Your task to perform on an android device: What is the recent news? Image 0: 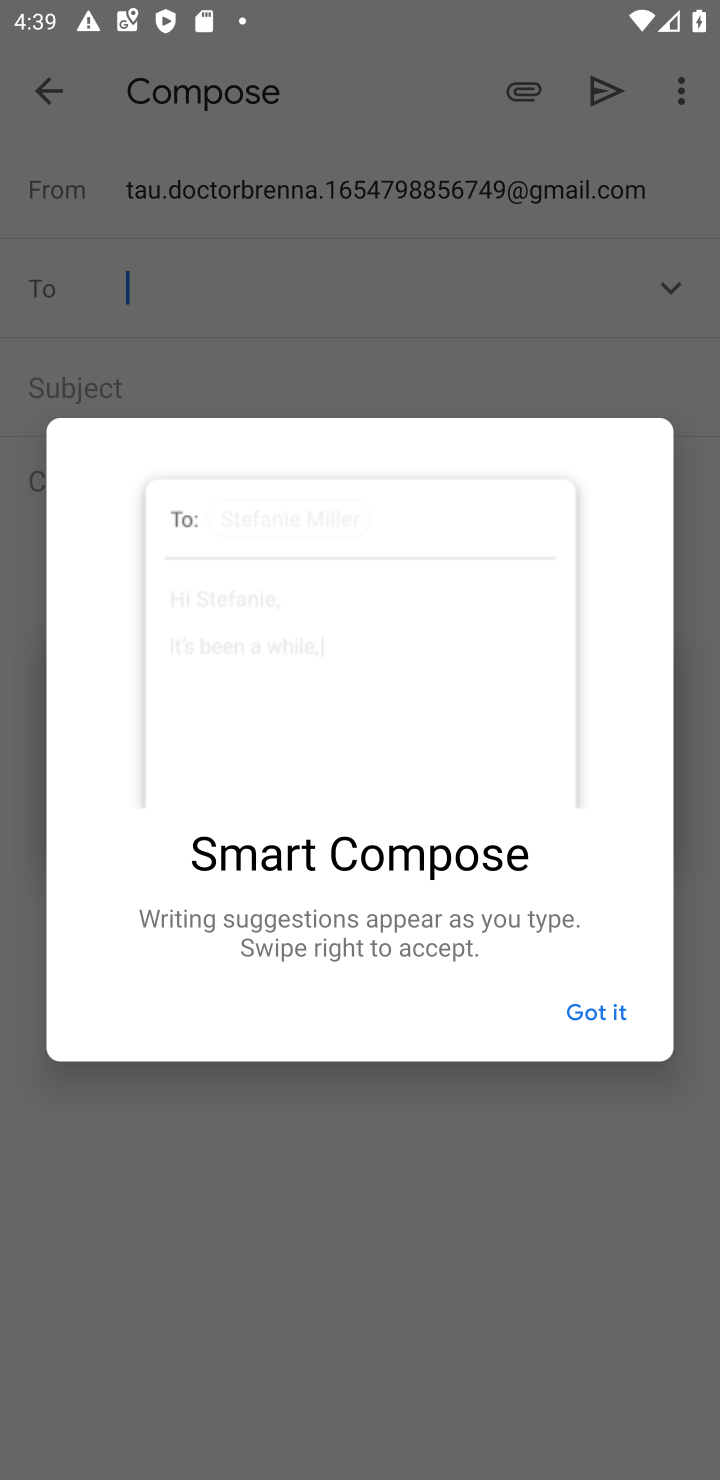
Step 0: click (576, 1019)
Your task to perform on an android device: What is the recent news? Image 1: 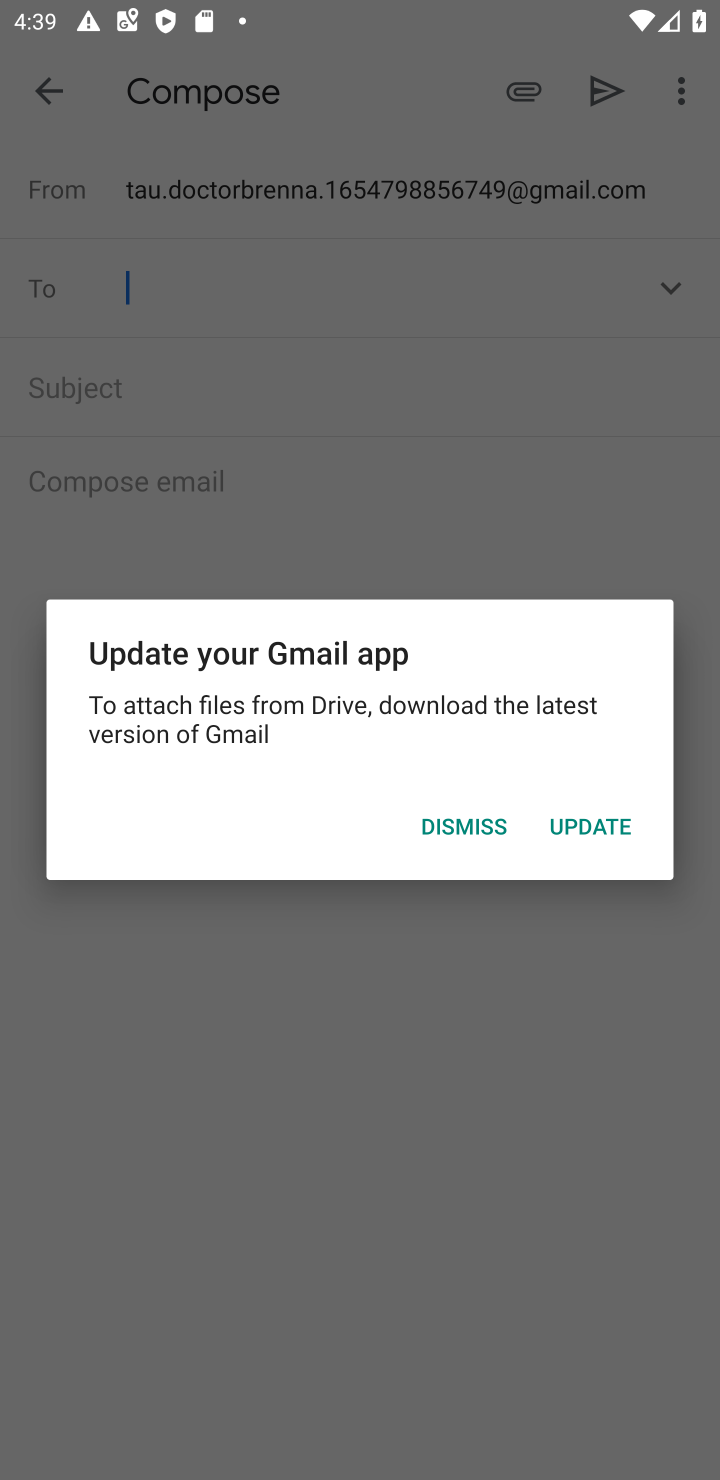
Step 1: press home button
Your task to perform on an android device: What is the recent news? Image 2: 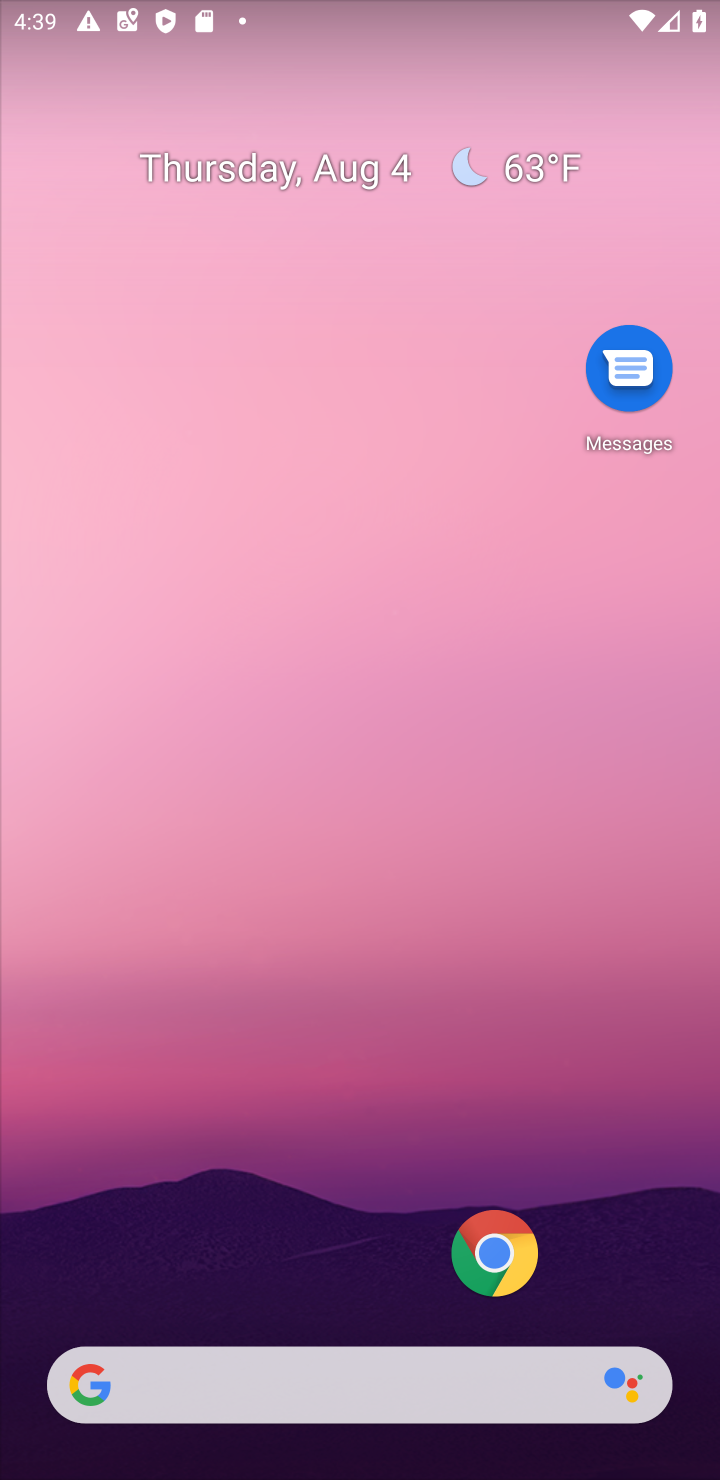
Step 2: drag from (318, 1333) to (290, 547)
Your task to perform on an android device: What is the recent news? Image 3: 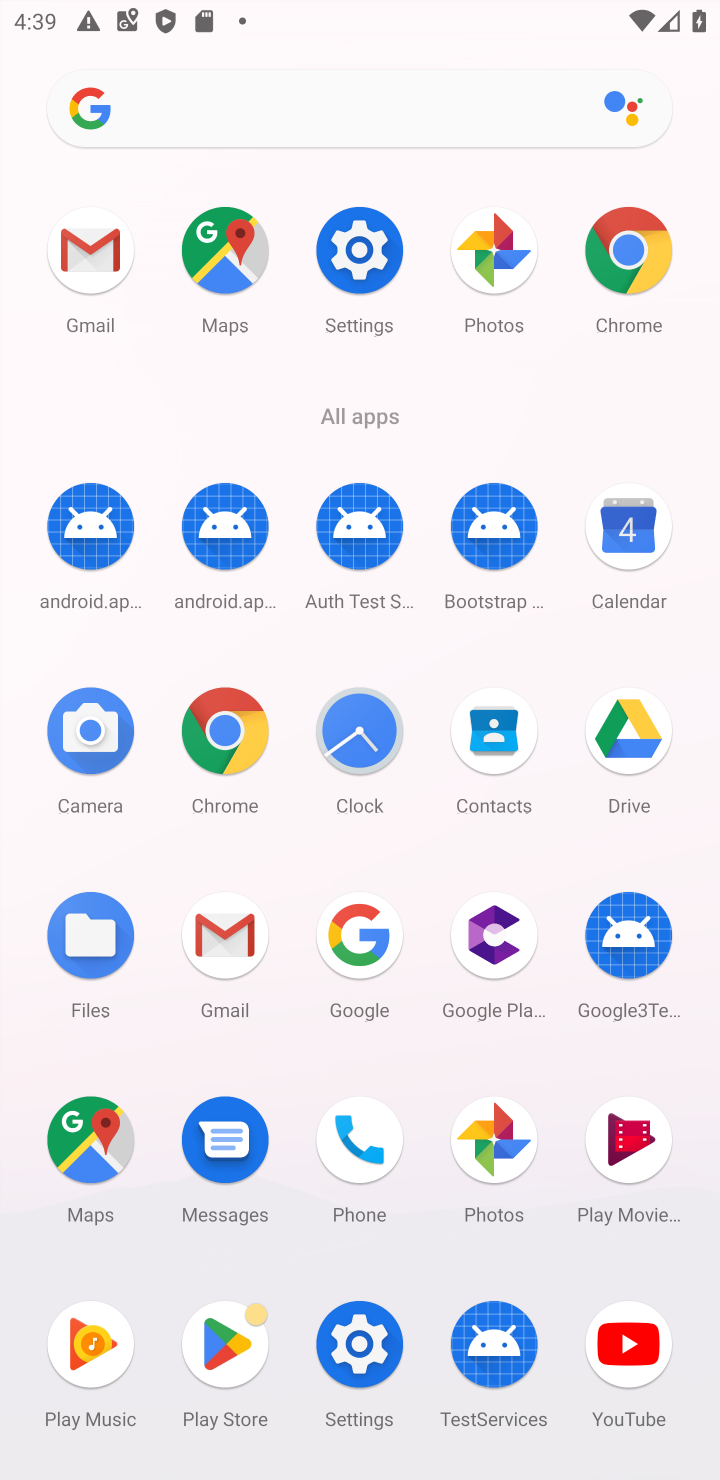
Step 3: click (347, 932)
Your task to perform on an android device: What is the recent news? Image 4: 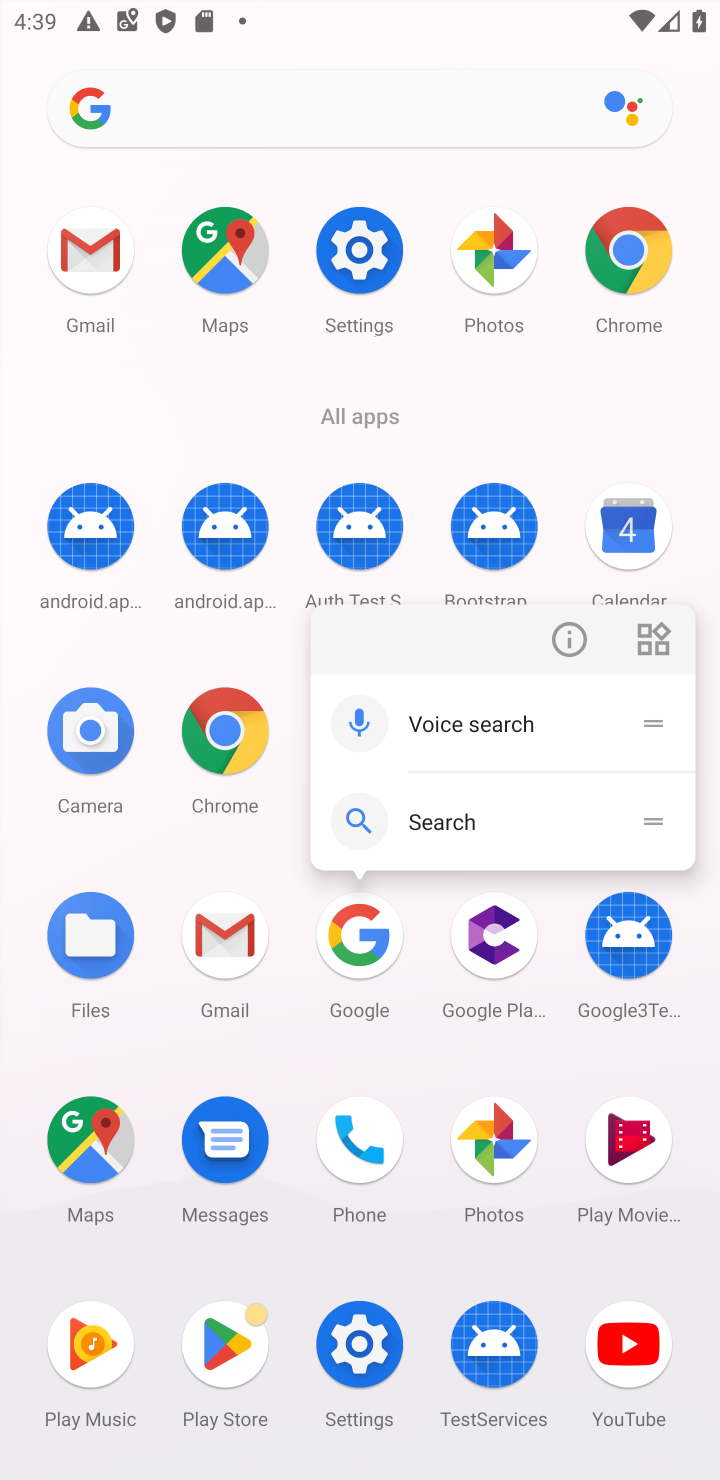
Step 4: click (347, 932)
Your task to perform on an android device: What is the recent news? Image 5: 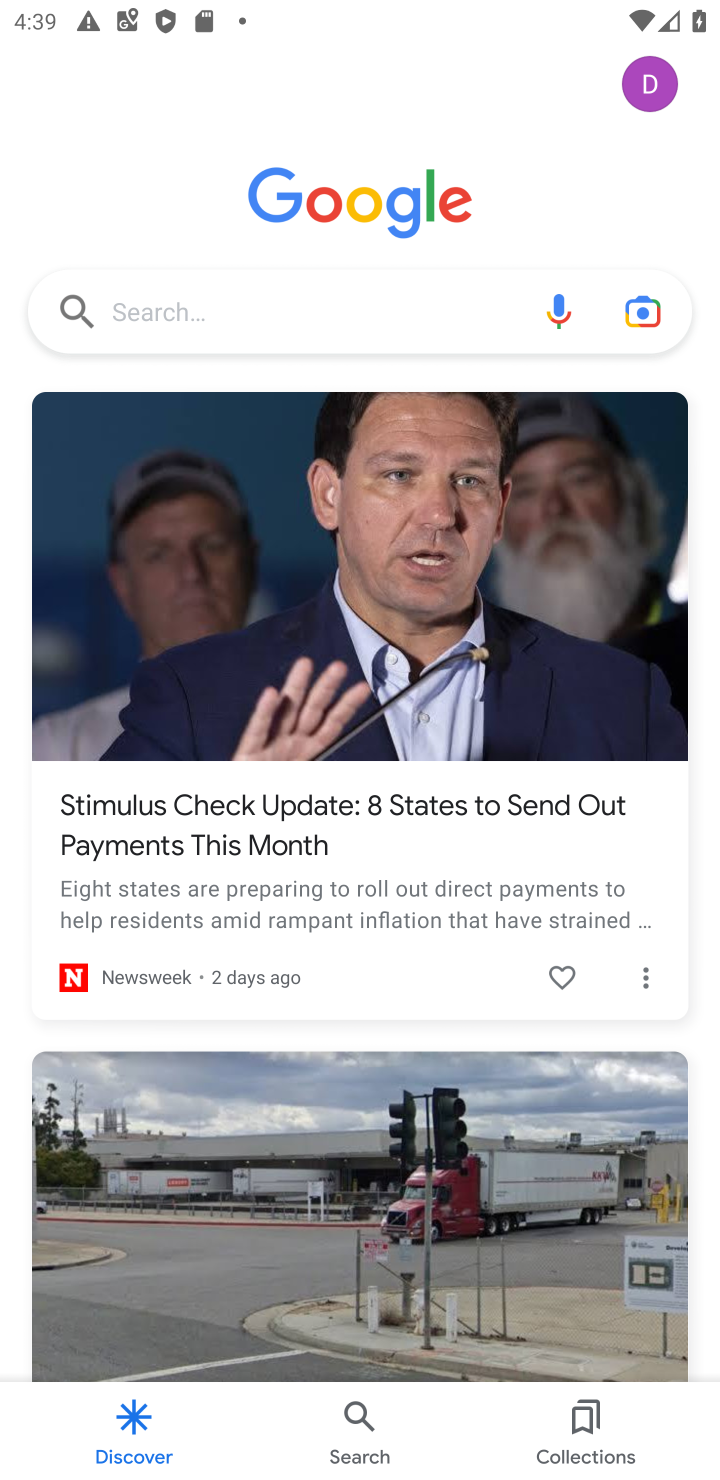
Step 5: click (174, 310)
Your task to perform on an android device: What is the recent news? Image 6: 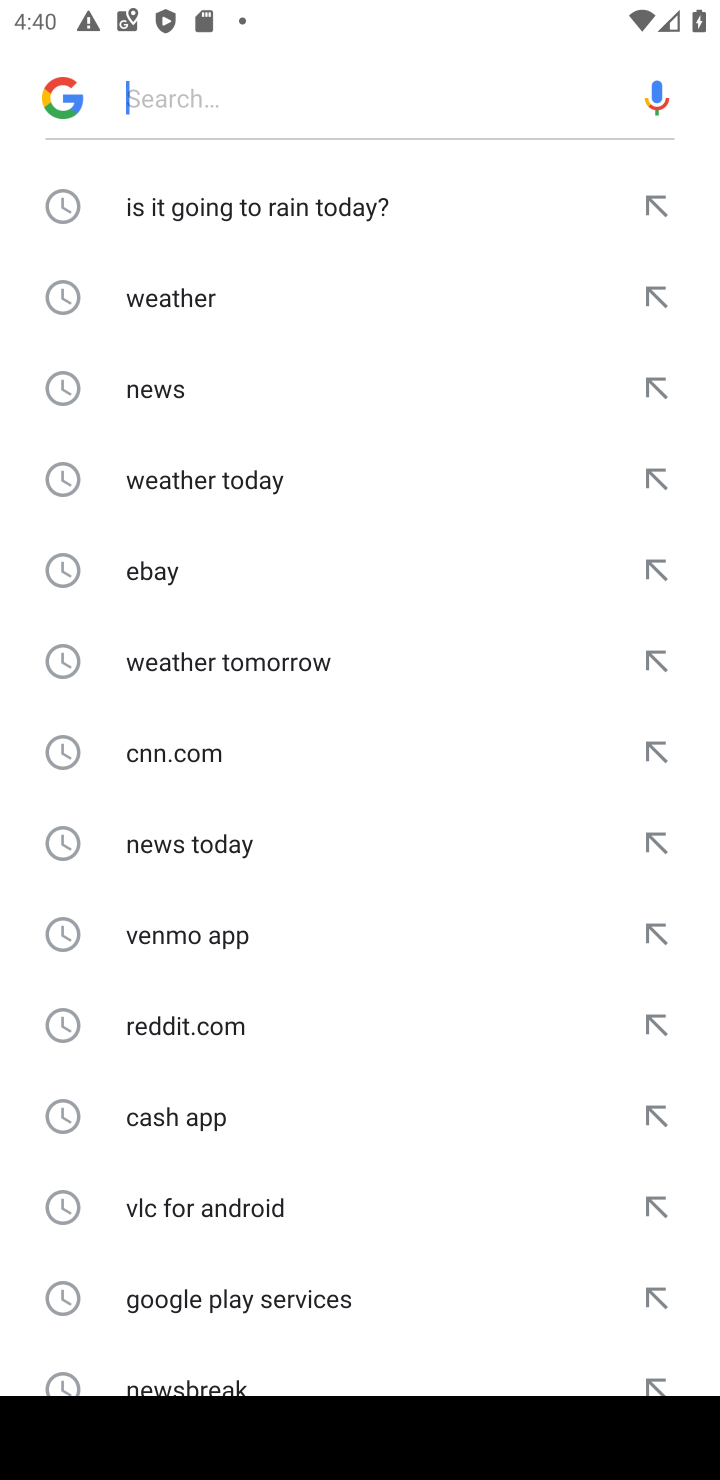
Step 6: drag from (177, 1295) to (124, 604)
Your task to perform on an android device: What is the recent news? Image 7: 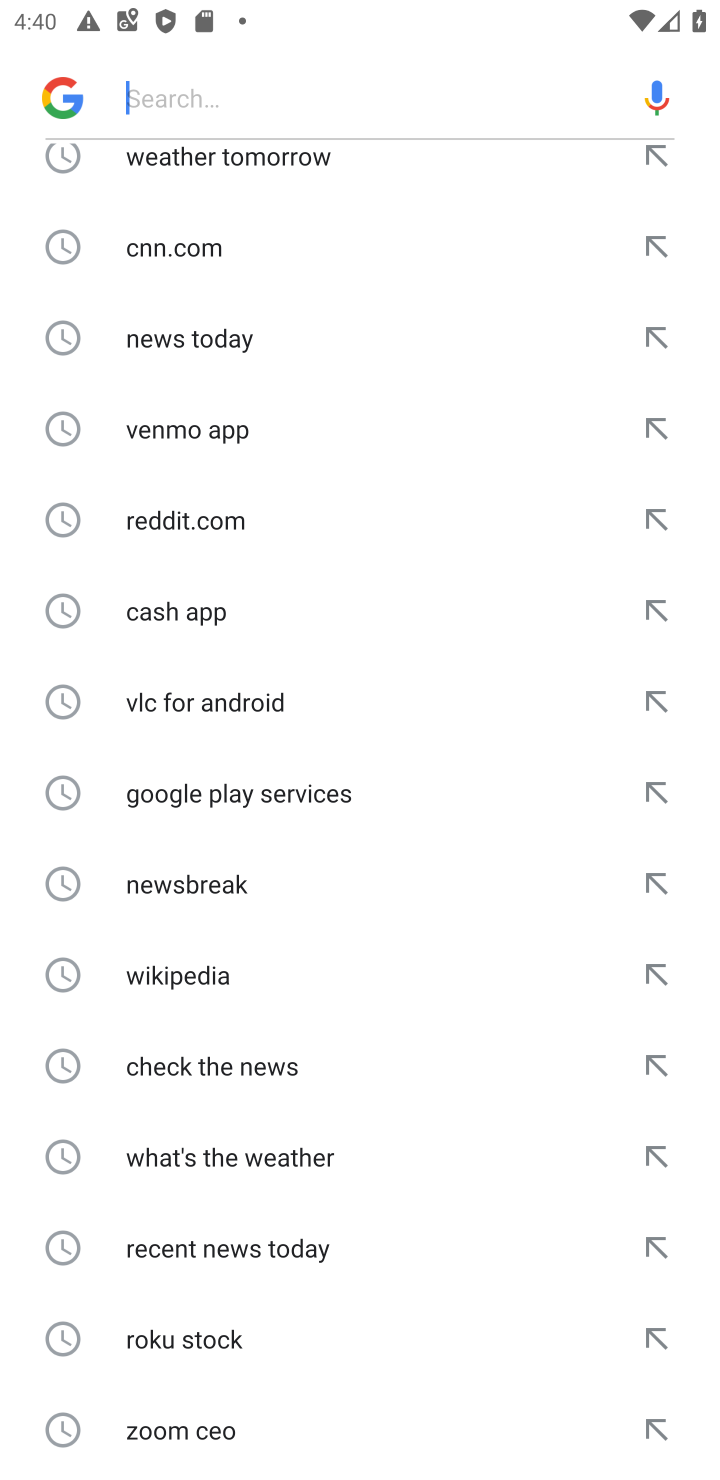
Step 7: click (206, 1238)
Your task to perform on an android device: What is the recent news? Image 8: 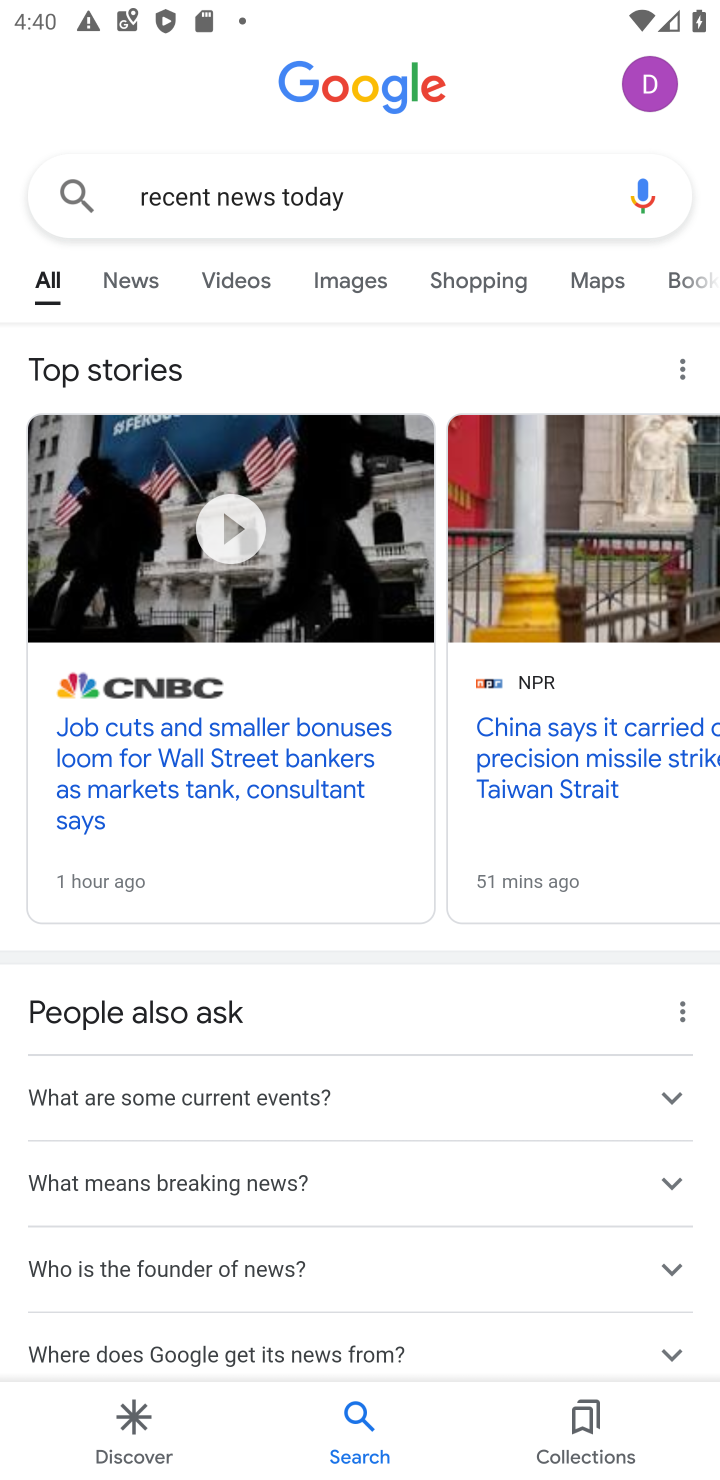
Step 8: task complete